Your task to perform on an android device: turn off location Image 0: 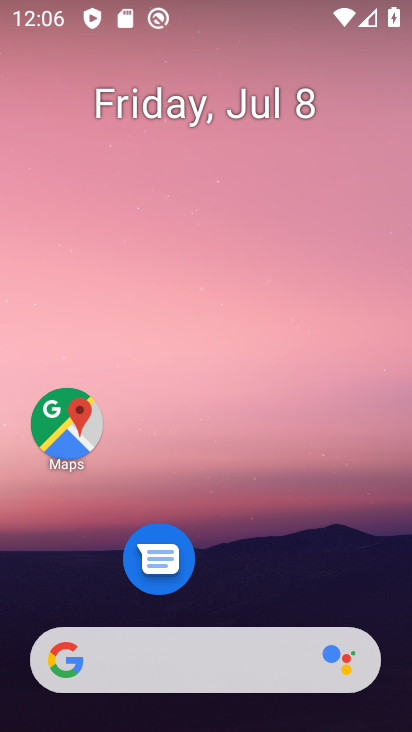
Step 0: drag from (214, 621) to (267, 60)
Your task to perform on an android device: turn off location Image 1: 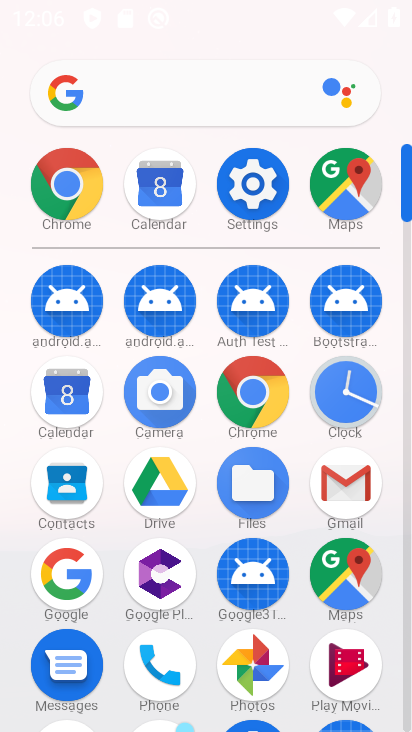
Step 1: click (268, 194)
Your task to perform on an android device: turn off location Image 2: 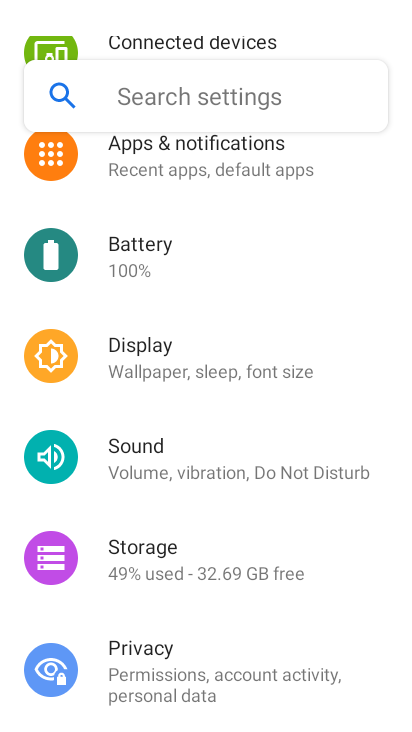
Step 2: drag from (146, 605) to (133, 367)
Your task to perform on an android device: turn off location Image 3: 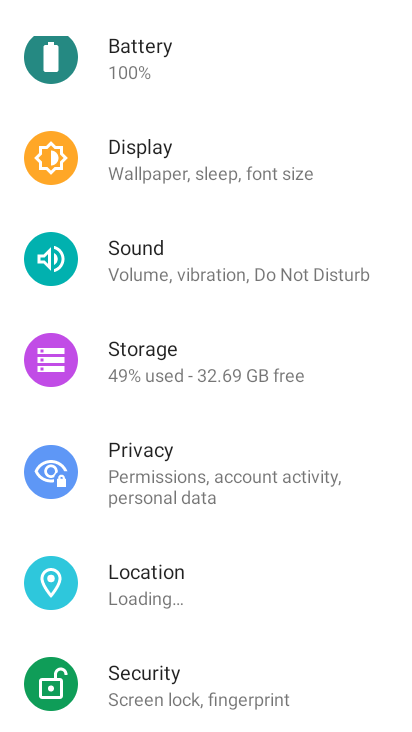
Step 3: click (158, 566)
Your task to perform on an android device: turn off location Image 4: 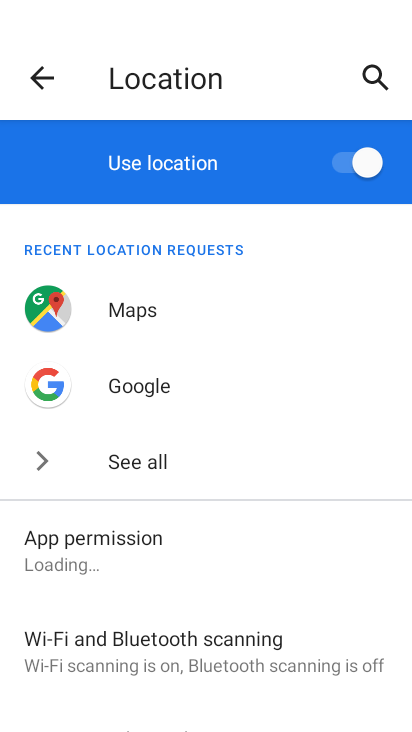
Step 4: click (349, 165)
Your task to perform on an android device: turn off location Image 5: 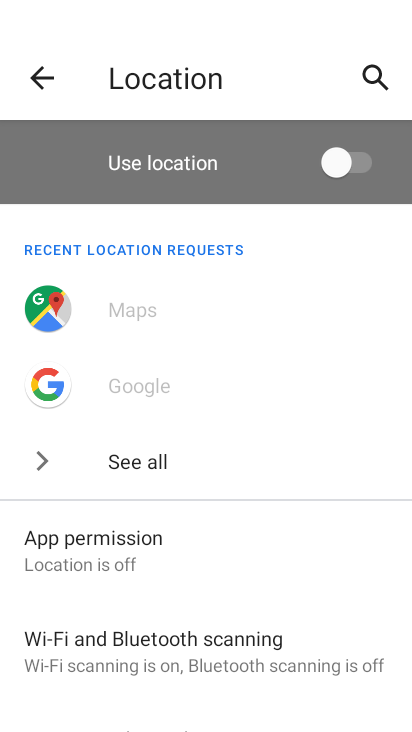
Step 5: task complete